Your task to perform on an android device: See recent photos Image 0: 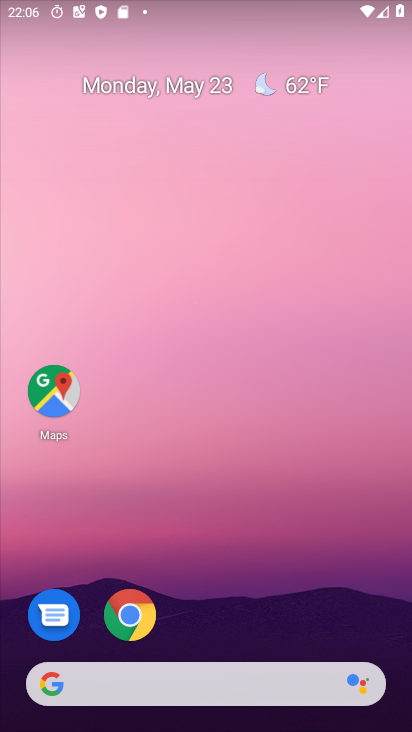
Step 0: drag from (269, 587) to (318, 72)
Your task to perform on an android device: See recent photos Image 1: 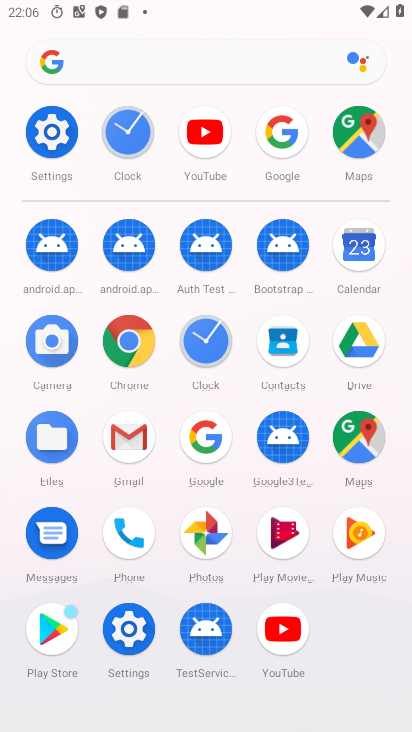
Step 1: click (210, 546)
Your task to perform on an android device: See recent photos Image 2: 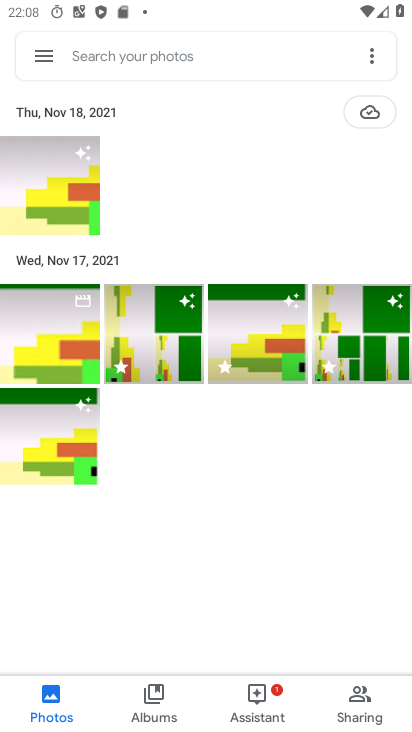
Step 2: click (210, 546)
Your task to perform on an android device: See recent photos Image 3: 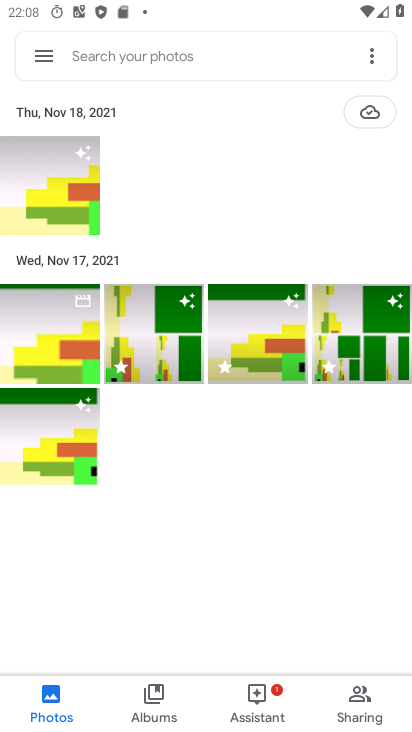
Step 3: task complete